Your task to perform on an android device: Open Google Image 0: 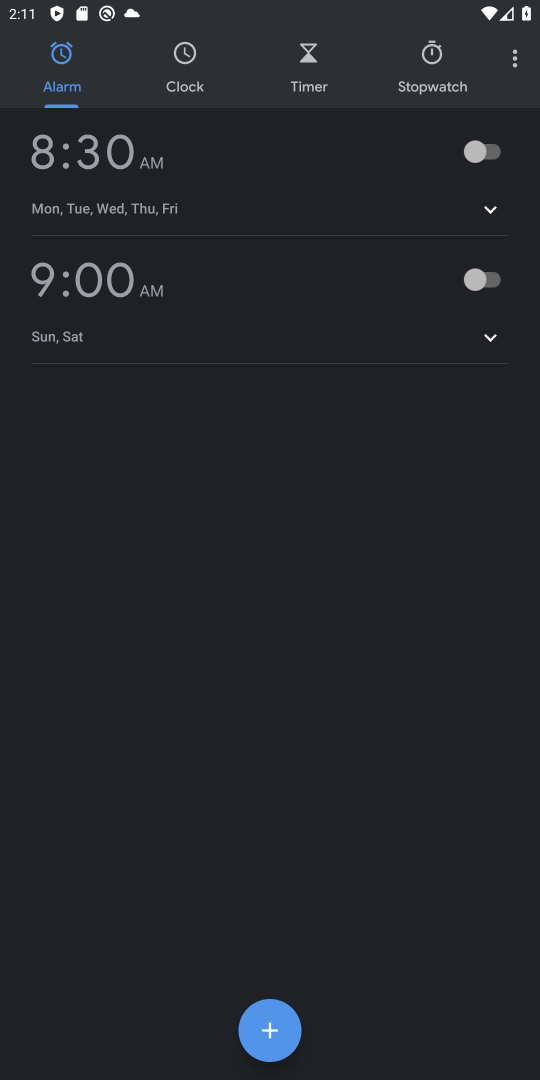
Step 0: press home button
Your task to perform on an android device: Open Google Image 1: 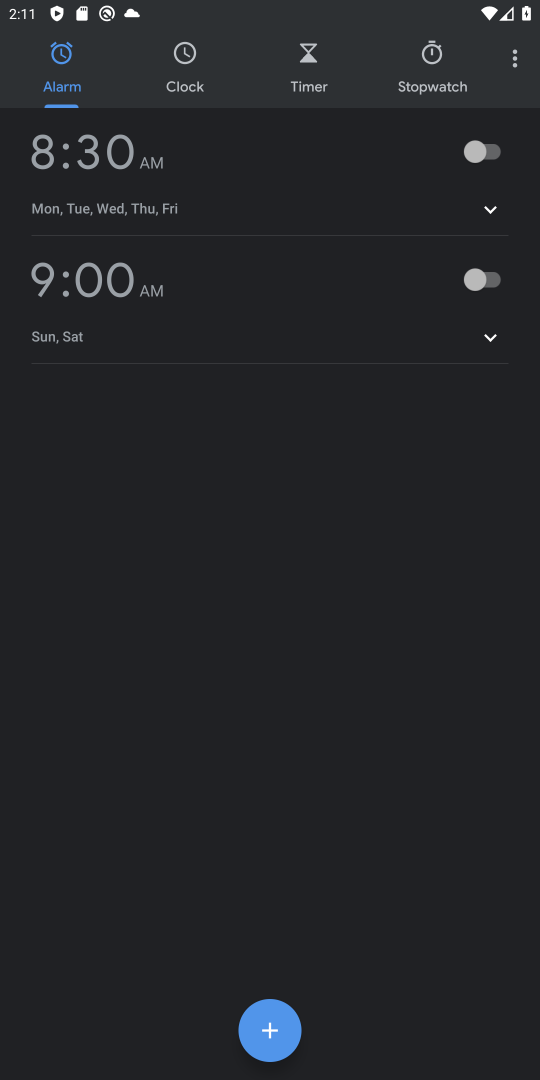
Step 1: press home button
Your task to perform on an android device: Open Google Image 2: 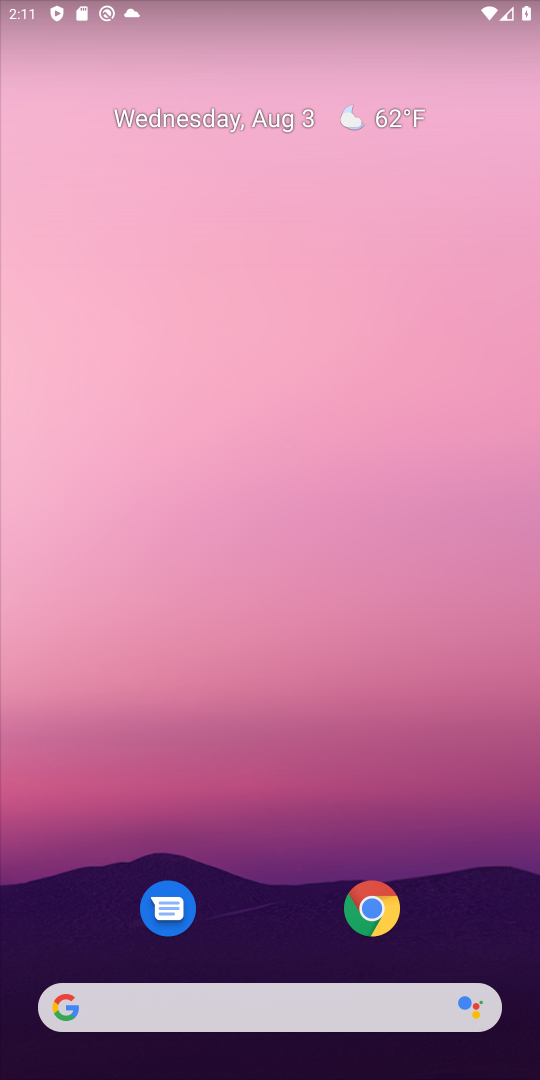
Step 2: drag from (328, 1038) to (462, 218)
Your task to perform on an android device: Open Google Image 3: 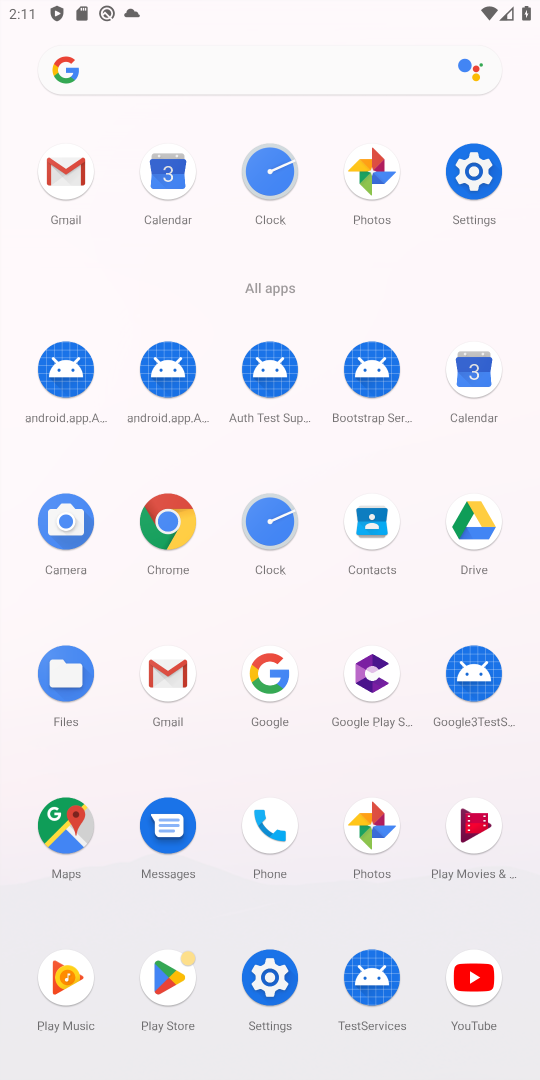
Step 3: click (269, 680)
Your task to perform on an android device: Open Google Image 4: 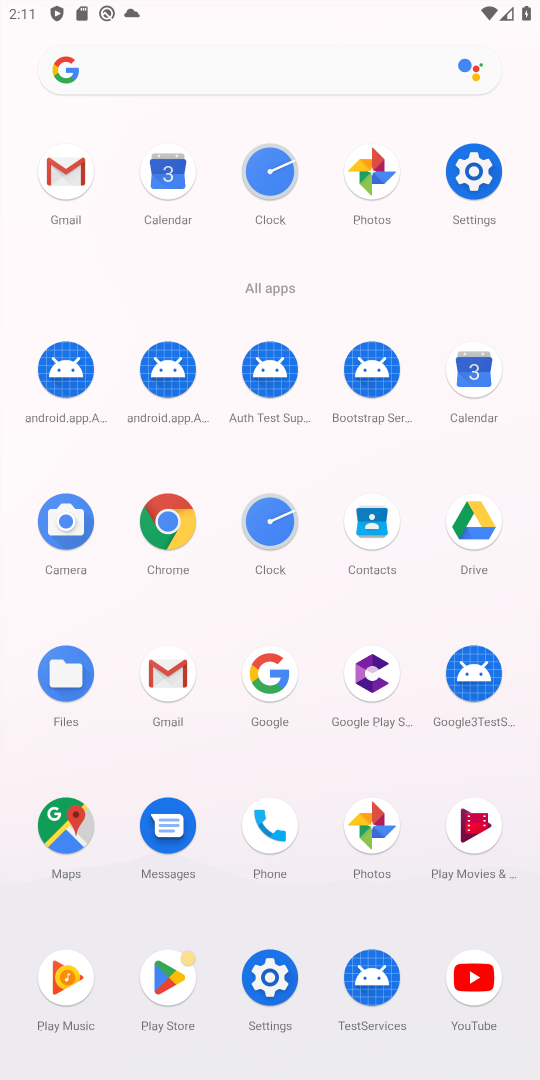
Step 4: click (269, 680)
Your task to perform on an android device: Open Google Image 5: 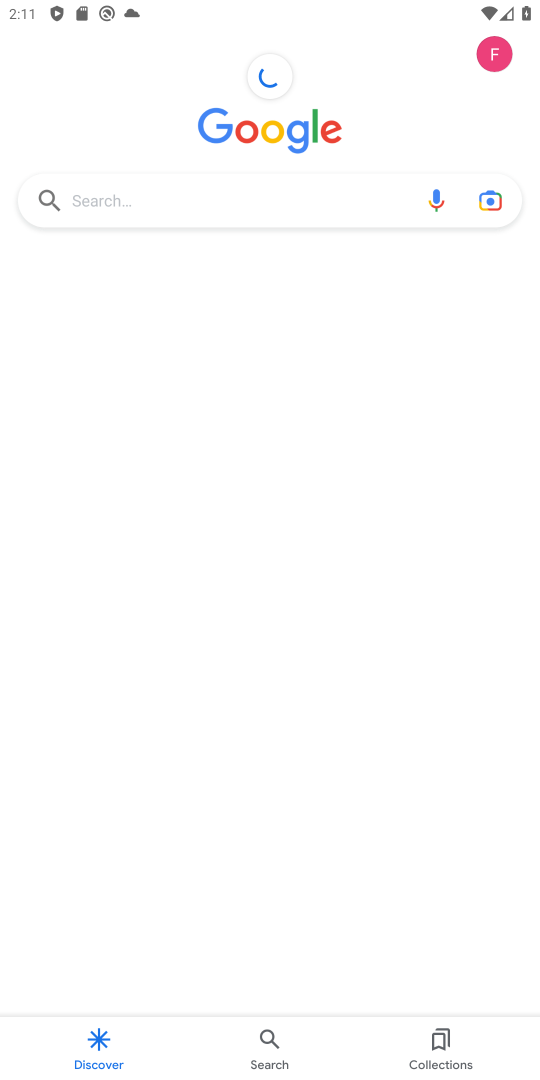
Step 5: task complete